Your task to perform on an android device: Go to Yahoo.com Image 0: 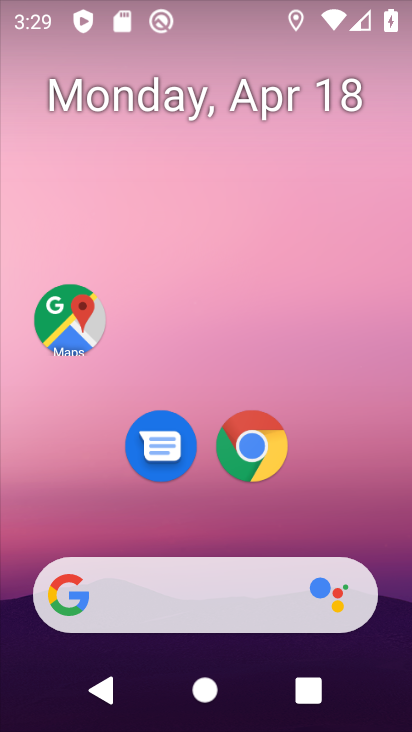
Step 0: click (268, 460)
Your task to perform on an android device: Go to Yahoo.com Image 1: 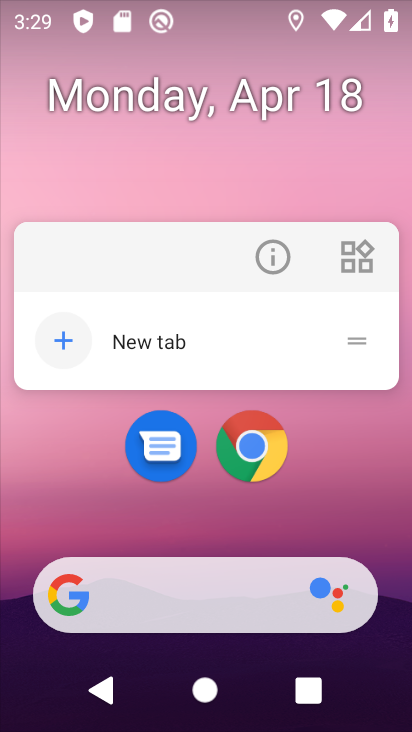
Step 1: click (269, 459)
Your task to perform on an android device: Go to Yahoo.com Image 2: 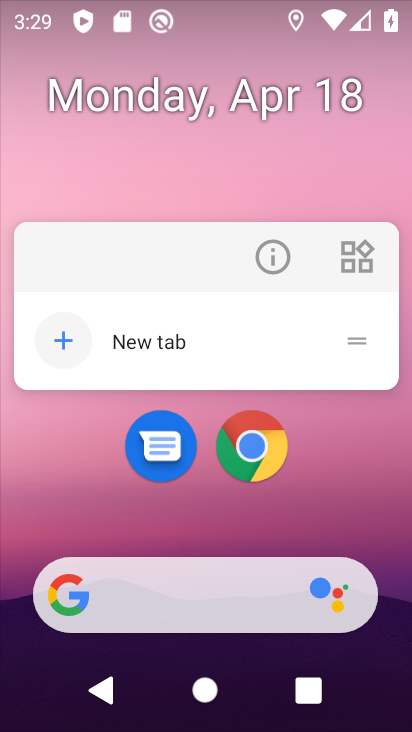
Step 2: click (270, 459)
Your task to perform on an android device: Go to Yahoo.com Image 3: 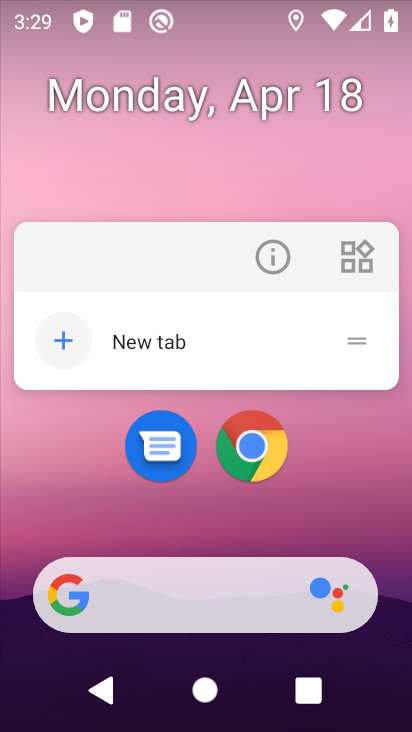
Step 3: click (270, 453)
Your task to perform on an android device: Go to Yahoo.com Image 4: 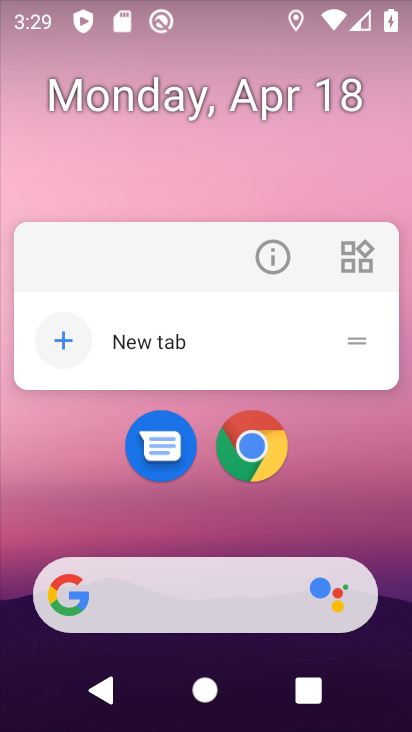
Step 4: click (270, 453)
Your task to perform on an android device: Go to Yahoo.com Image 5: 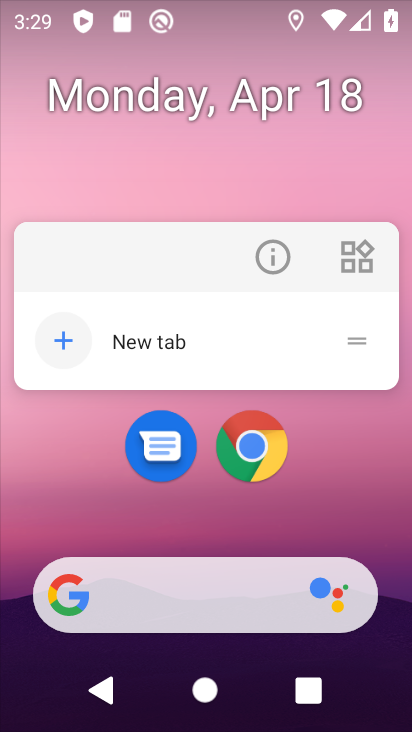
Step 5: click (274, 439)
Your task to perform on an android device: Go to Yahoo.com Image 6: 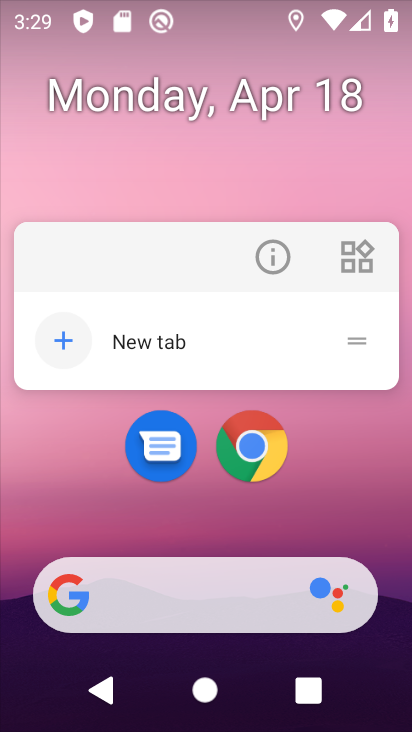
Step 6: click (272, 437)
Your task to perform on an android device: Go to Yahoo.com Image 7: 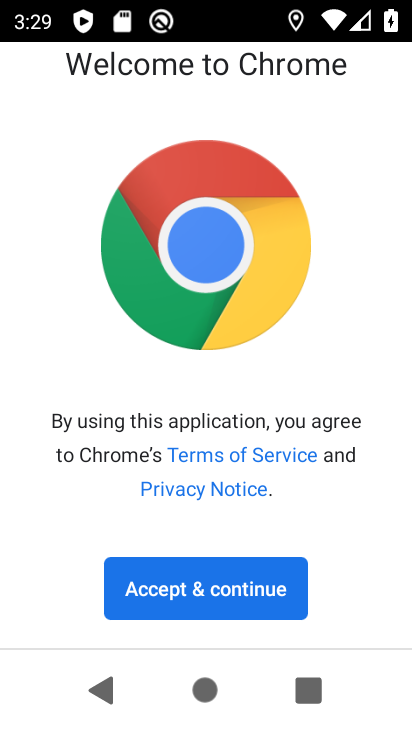
Step 7: click (245, 555)
Your task to perform on an android device: Go to Yahoo.com Image 8: 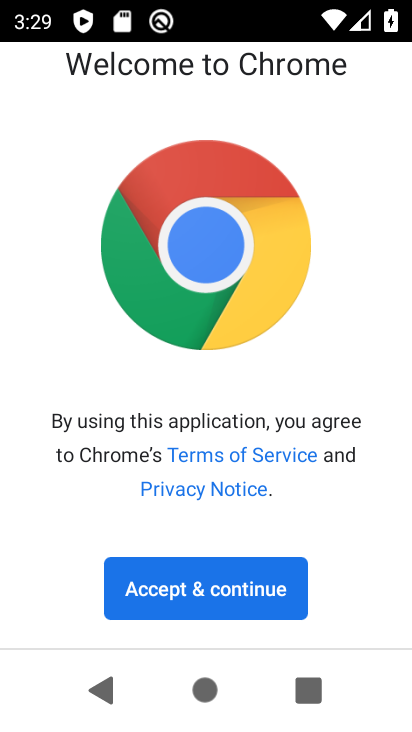
Step 8: click (289, 585)
Your task to perform on an android device: Go to Yahoo.com Image 9: 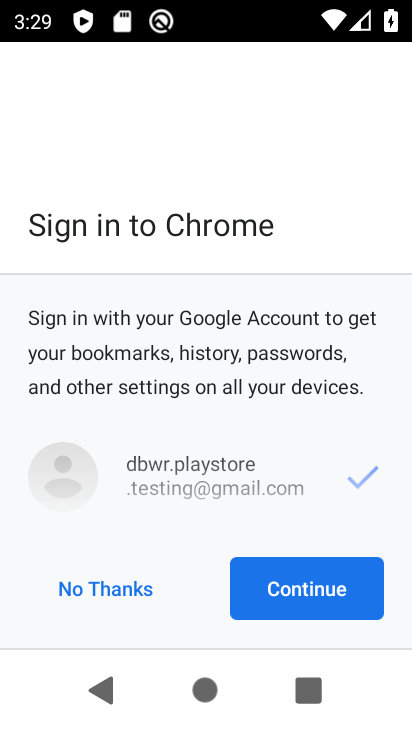
Step 9: click (291, 580)
Your task to perform on an android device: Go to Yahoo.com Image 10: 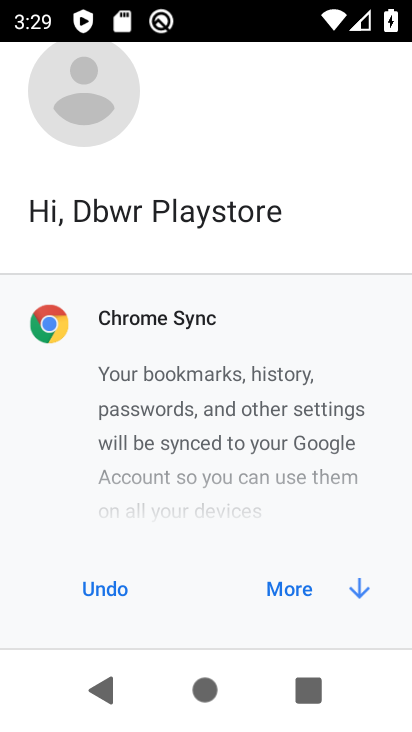
Step 10: click (307, 591)
Your task to perform on an android device: Go to Yahoo.com Image 11: 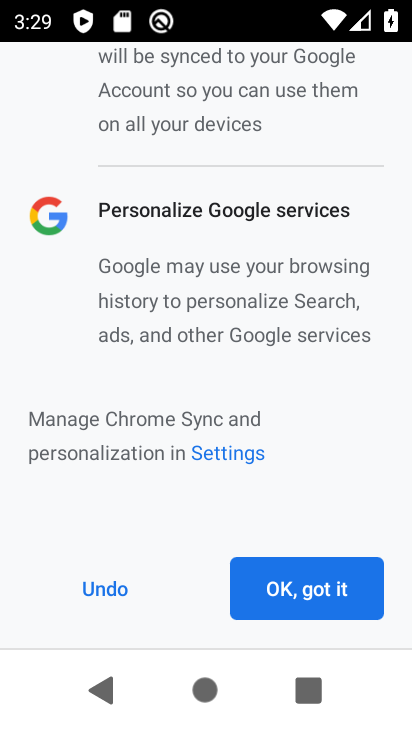
Step 11: click (346, 581)
Your task to perform on an android device: Go to Yahoo.com Image 12: 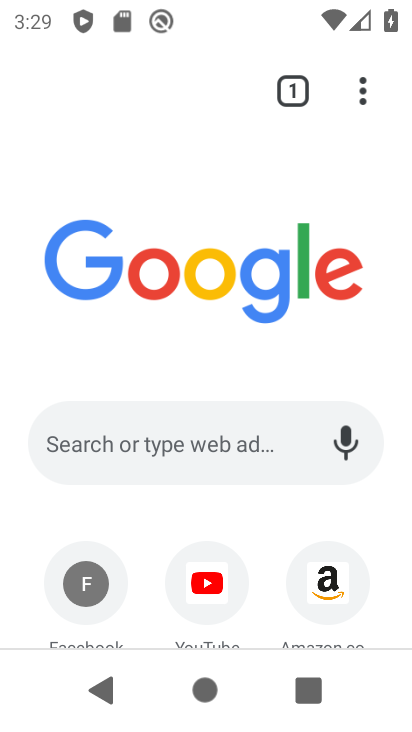
Step 12: drag from (389, 556) to (360, 231)
Your task to perform on an android device: Go to Yahoo.com Image 13: 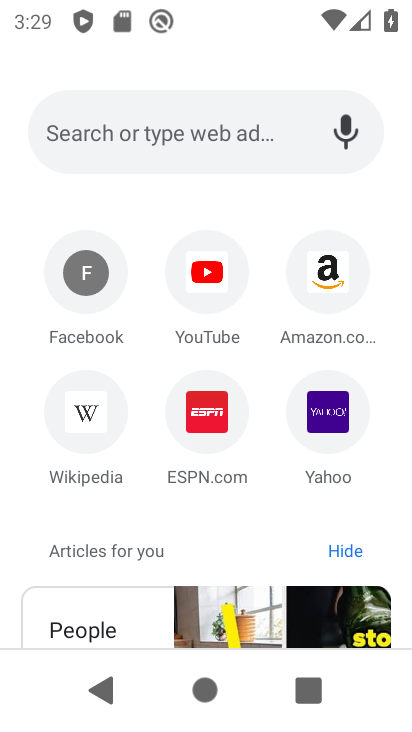
Step 13: click (340, 397)
Your task to perform on an android device: Go to Yahoo.com Image 14: 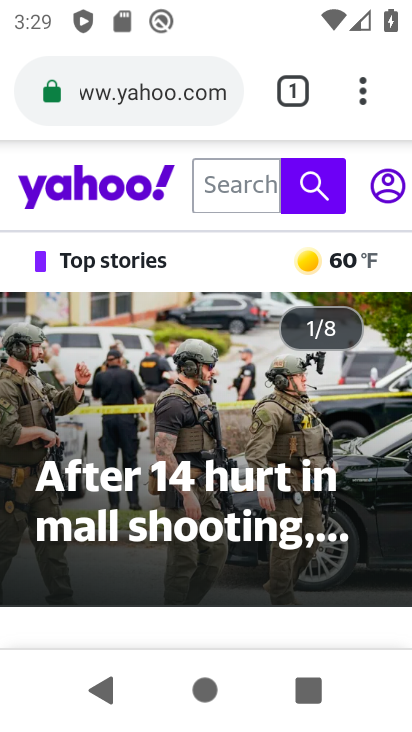
Step 14: task complete